Your task to perform on an android device: Open Wikipedia Image 0: 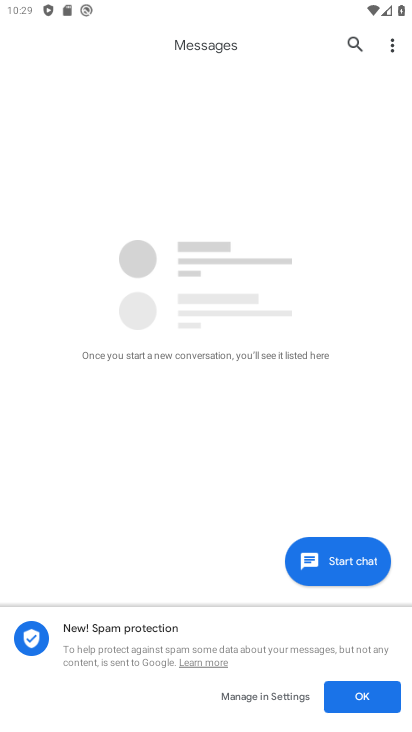
Step 0: press home button
Your task to perform on an android device: Open Wikipedia Image 1: 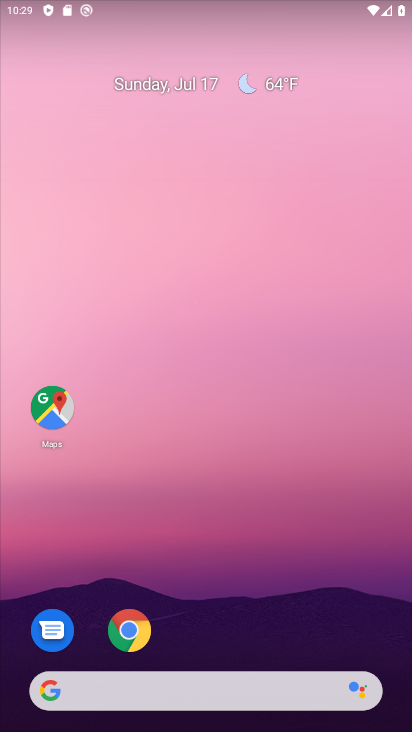
Step 1: click (127, 633)
Your task to perform on an android device: Open Wikipedia Image 2: 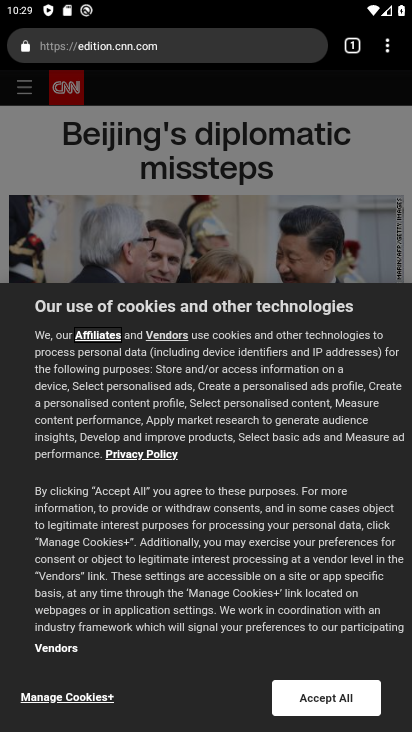
Step 2: click (194, 41)
Your task to perform on an android device: Open Wikipedia Image 3: 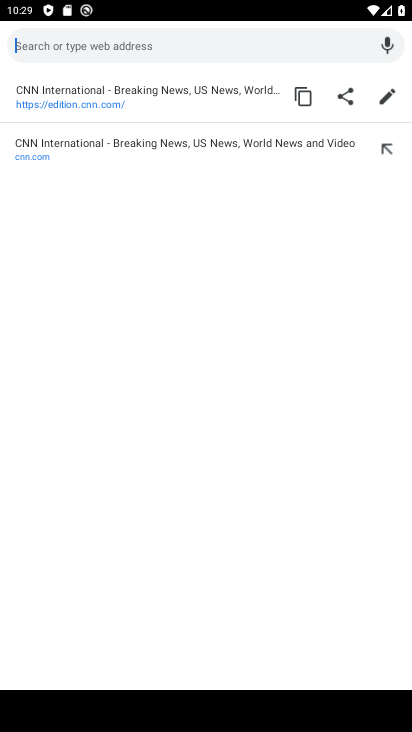
Step 3: type "wikipedia"
Your task to perform on an android device: Open Wikipedia Image 4: 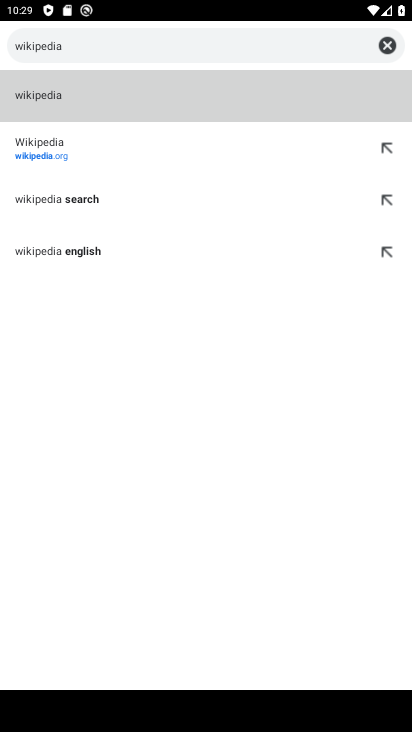
Step 4: click (73, 95)
Your task to perform on an android device: Open Wikipedia Image 5: 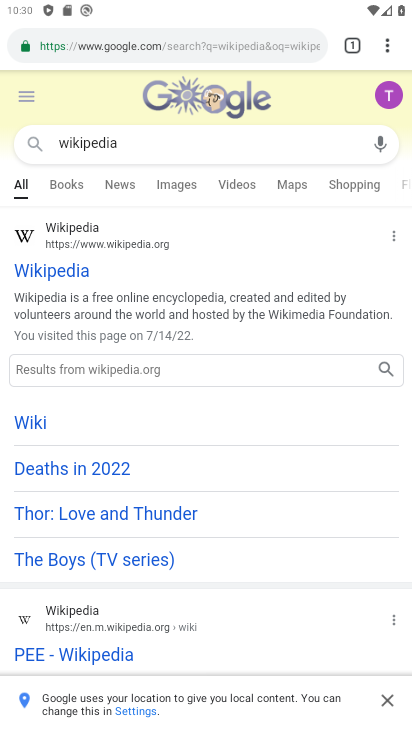
Step 5: click (72, 283)
Your task to perform on an android device: Open Wikipedia Image 6: 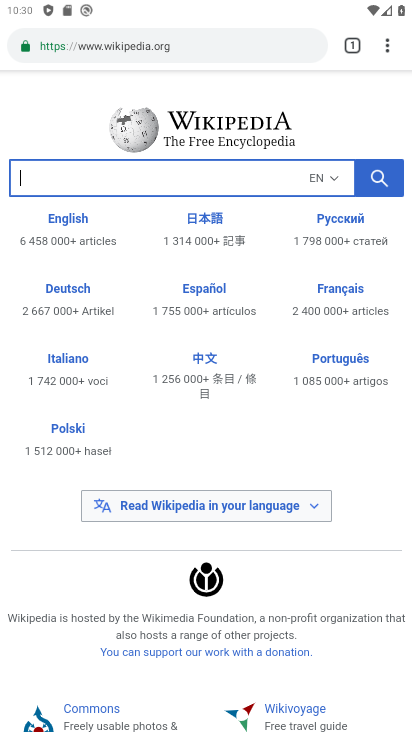
Step 6: task complete